Your task to perform on an android device: Open internet settings Image 0: 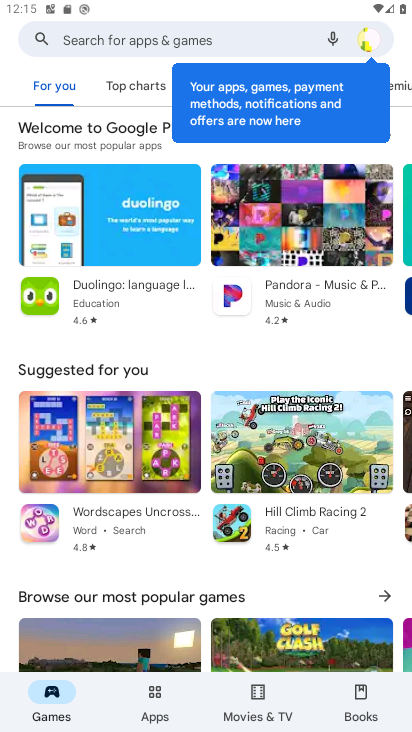
Step 0: press home button
Your task to perform on an android device: Open internet settings Image 1: 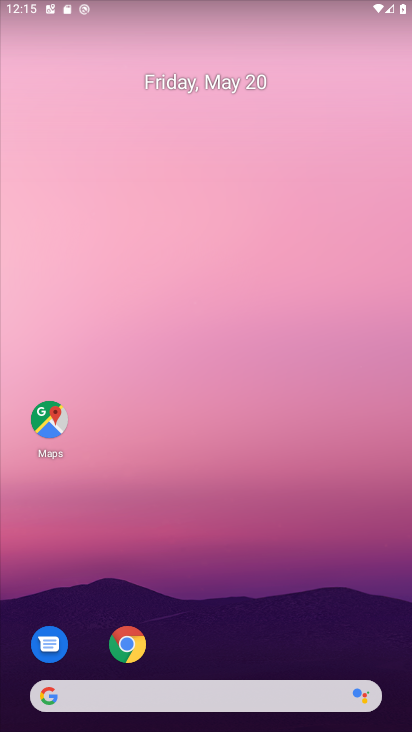
Step 1: drag from (187, 664) to (194, 240)
Your task to perform on an android device: Open internet settings Image 2: 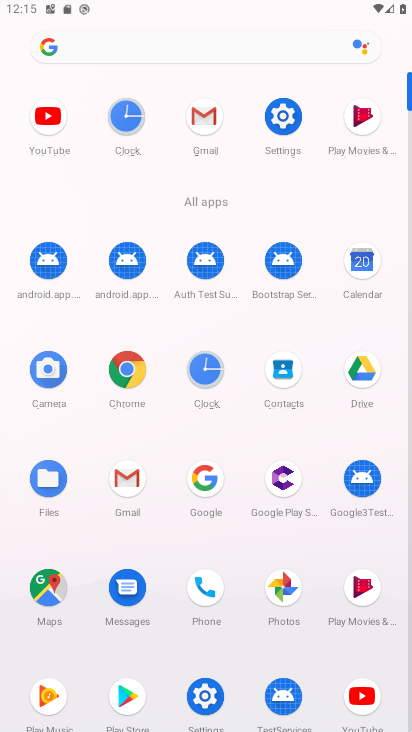
Step 2: click (293, 111)
Your task to perform on an android device: Open internet settings Image 3: 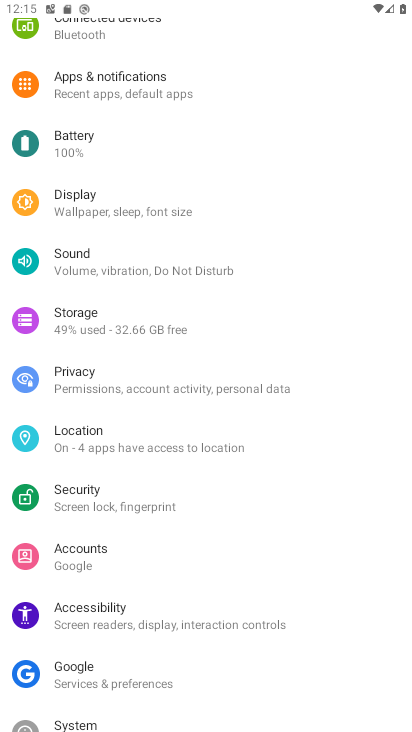
Step 3: drag from (114, 47) to (113, 430)
Your task to perform on an android device: Open internet settings Image 4: 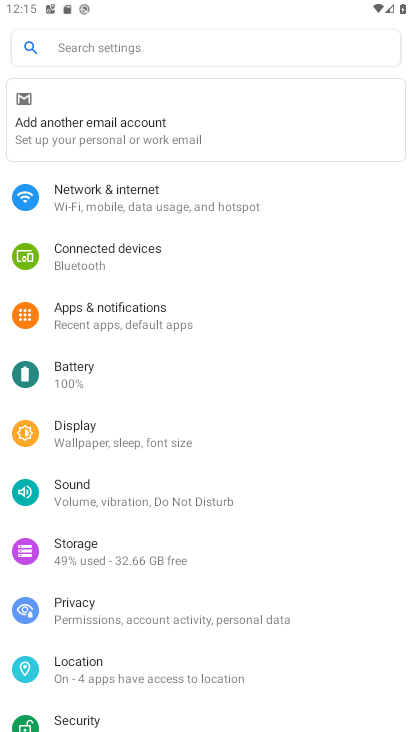
Step 4: click (123, 203)
Your task to perform on an android device: Open internet settings Image 5: 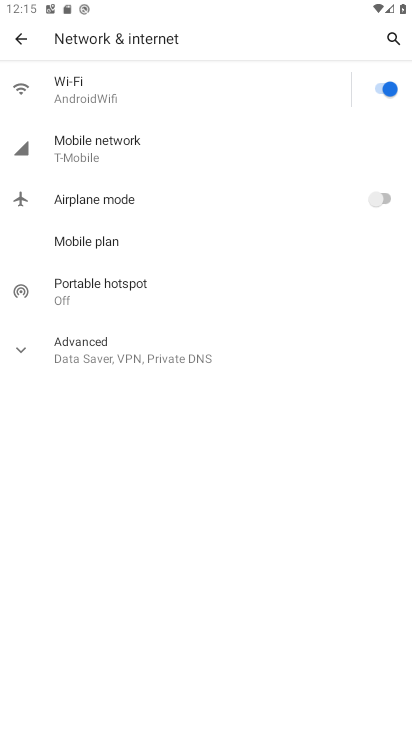
Step 5: click (98, 366)
Your task to perform on an android device: Open internet settings Image 6: 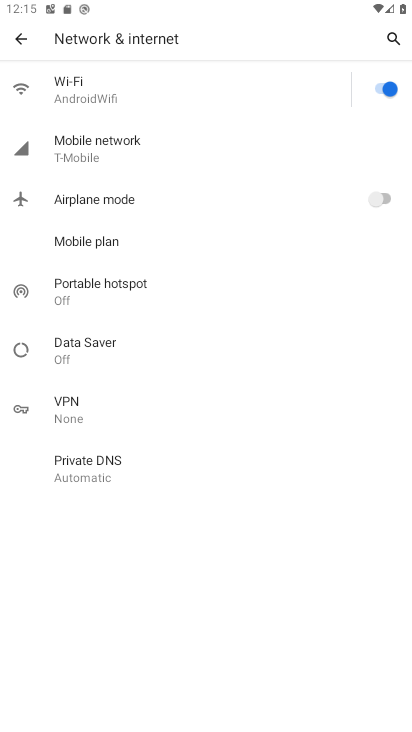
Step 6: task complete